Your task to perform on an android device: Go to location settings Image 0: 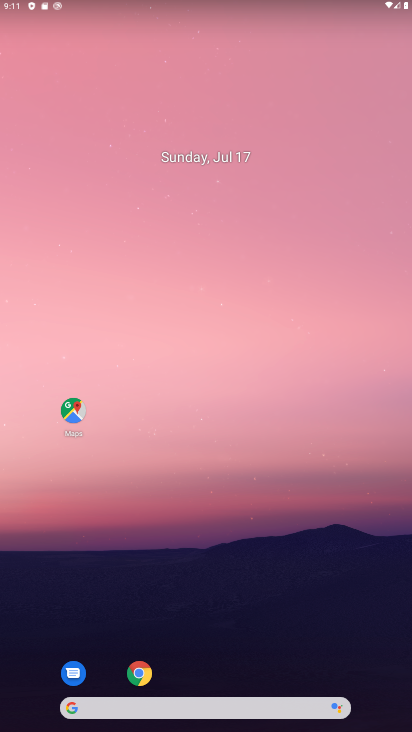
Step 0: drag from (309, 671) to (363, 14)
Your task to perform on an android device: Go to location settings Image 1: 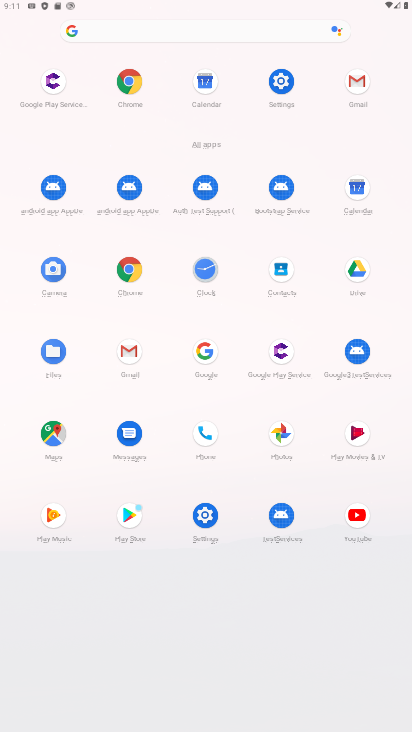
Step 1: click (276, 80)
Your task to perform on an android device: Go to location settings Image 2: 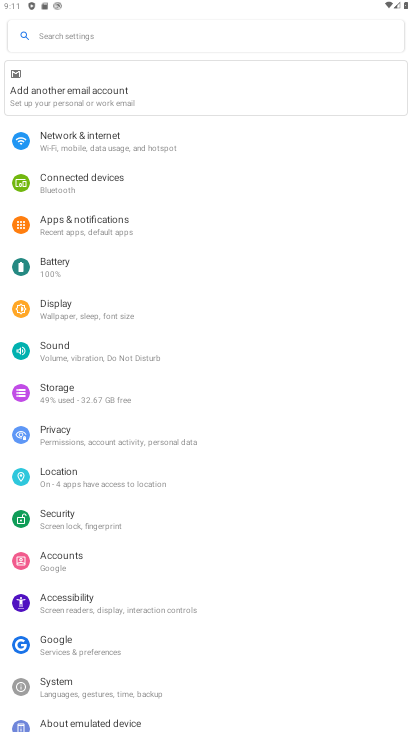
Step 2: click (97, 265)
Your task to perform on an android device: Go to location settings Image 3: 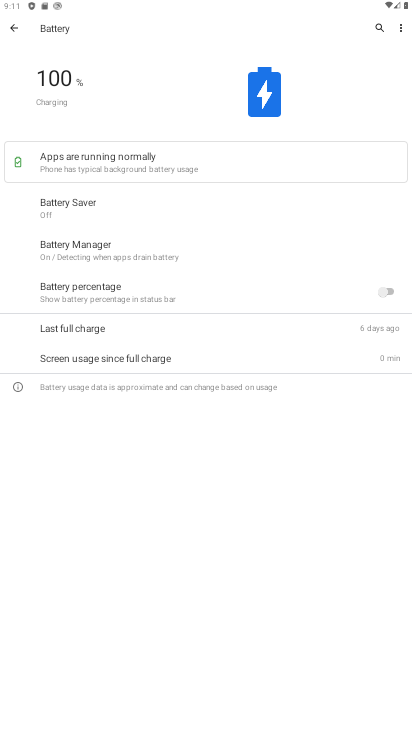
Step 3: click (402, 31)
Your task to perform on an android device: Go to location settings Image 4: 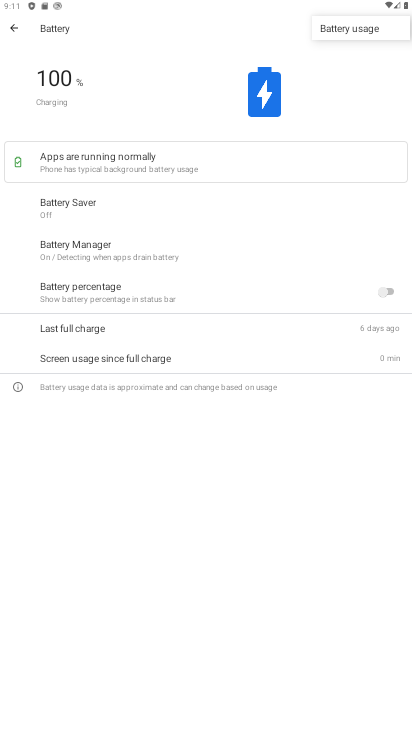
Step 4: click (370, 32)
Your task to perform on an android device: Go to location settings Image 5: 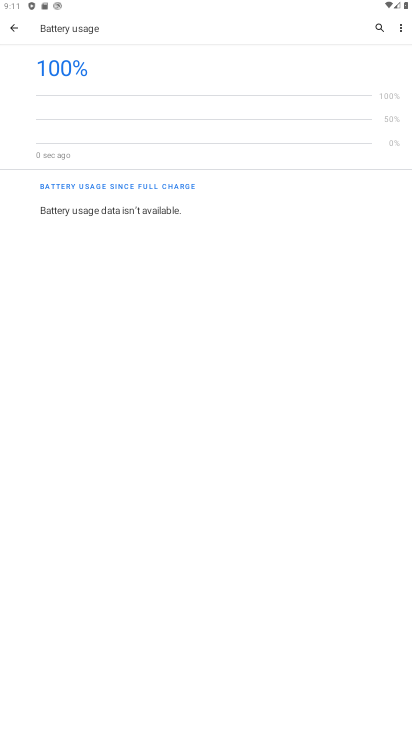
Step 5: task complete